Your task to perform on an android device: uninstall "Cash App" Image 0: 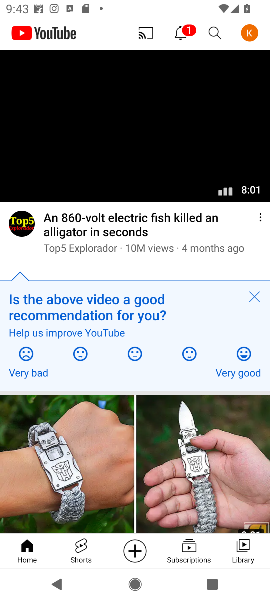
Step 0: press home button
Your task to perform on an android device: uninstall "Cash App" Image 1: 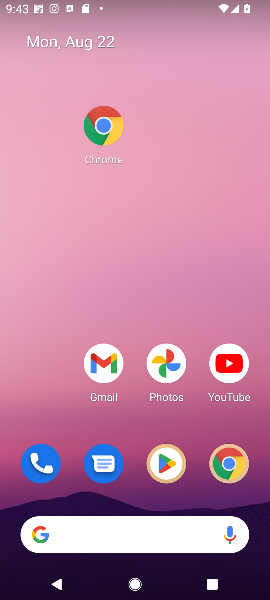
Step 1: click (161, 464)
Your task to perform on an android device: uninstall "Cash App" Image 2: 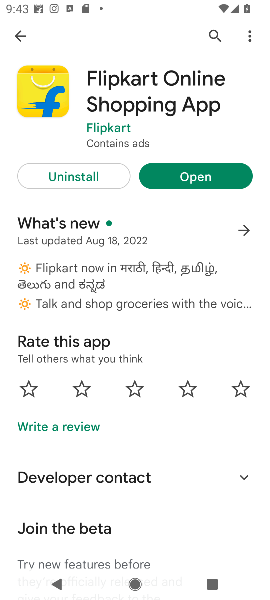
Step 2: click (18, 39)
Your task to perform on an android device: uninstall "Cash App" Image 3: 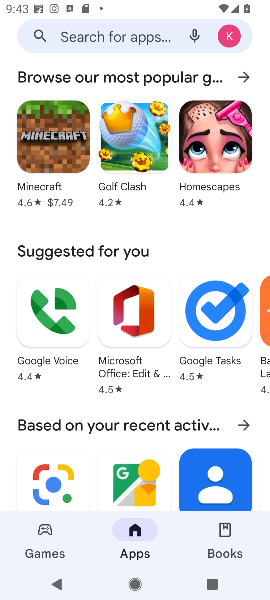
Step 3: click (111, 39)
Your task to perform on an android device: uninstall "Cash App" Image 4: 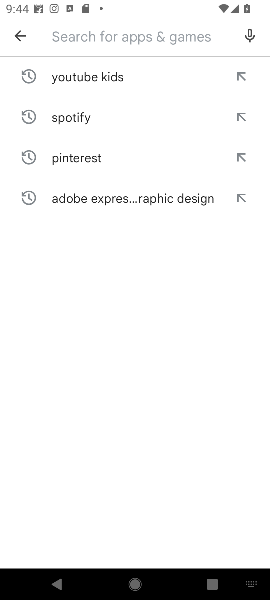
Step 4: type "Cash App"
Your task to perform on an android device: uninstall "Cash App" Image 5: 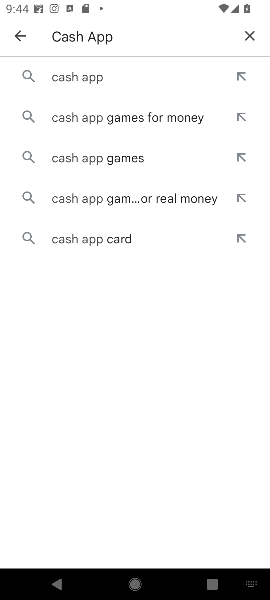
Step 5: click (97, 76)
Your task to perform on an android device: uninstall "Cash App" Image 6: 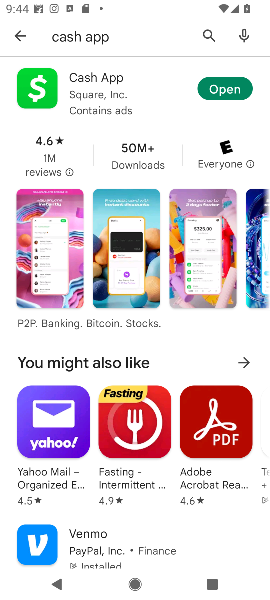
Step 6: click (221, 86)
Your task to perform on an android device: uninstall "Cash App" Image 7: 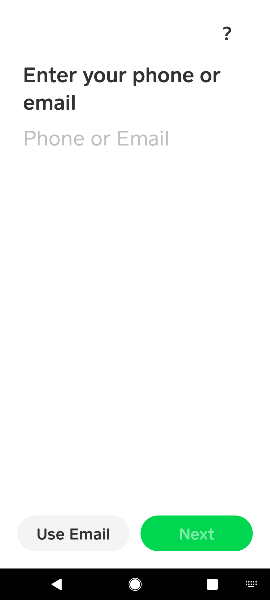
Step 7: press back button
Your task to perform on an android device: uninstall "Cash App" Image 8: 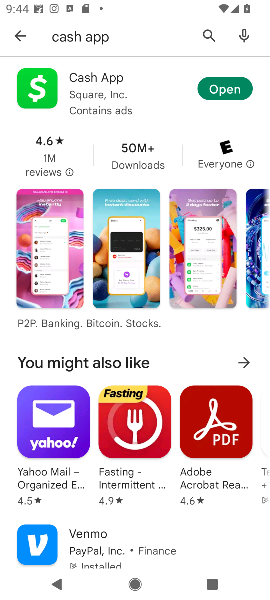
Step 8: click (82, 90)
Your task to perform on an android device: uninstall "Cash App" Image 9: 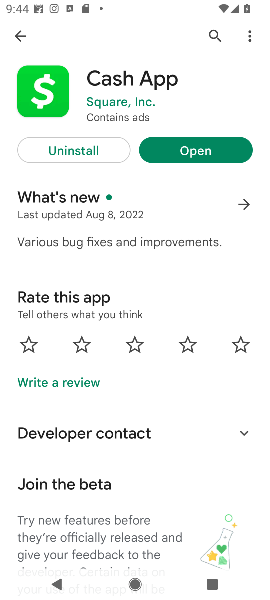
Step 9: click (80, 150)
Your task to perform on an android device: uninstall "Cash App" Image 10: 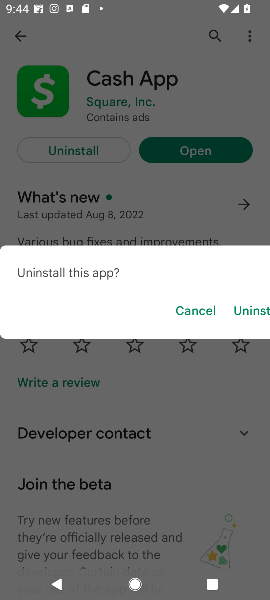
Step 10: click (244, 313)
Your task to perform on an android device: uninstall "Cash App" Image 11: 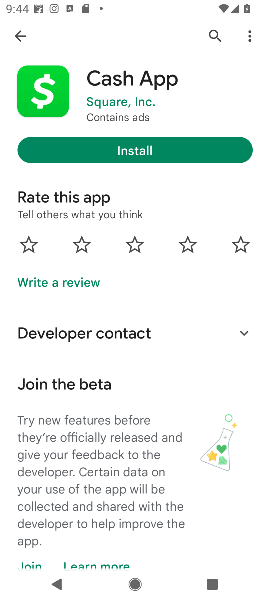
Step 11: task complete